Your task to perform on an android device: Open Yahoo.com Image 0: 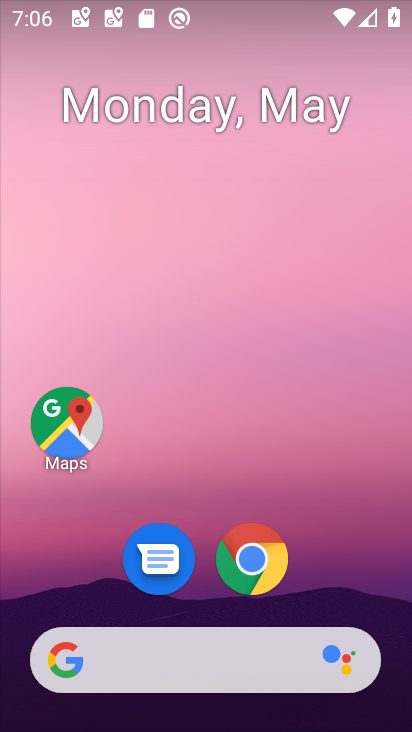
Step 0: drag from (402, 657) to (258, 82)
Your task to perform on an android device: Open Yahoo.com Image 1: 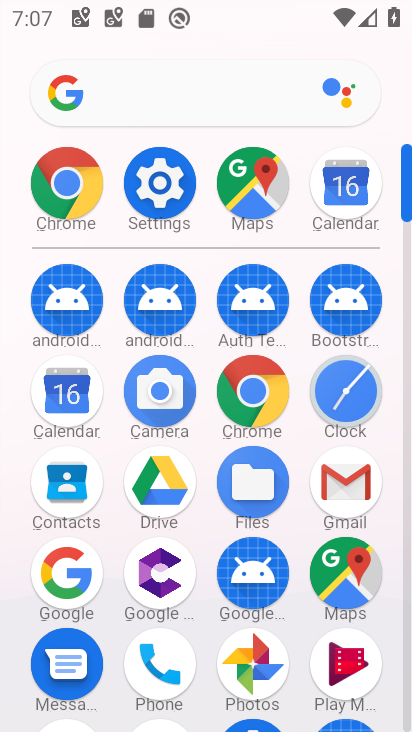
Step 1: click (270, 396)
Your task to perform on an android device: Open Yahoo.com Image 2: 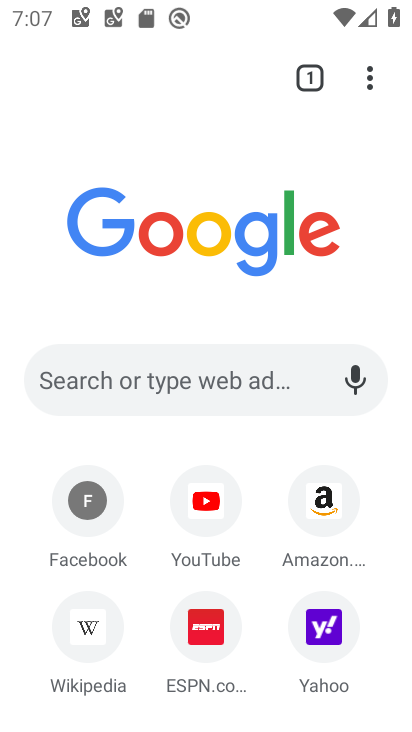
Step 2: click (321, 625)
Your task to perform on an android device: Open Yahoo.com Image 3: 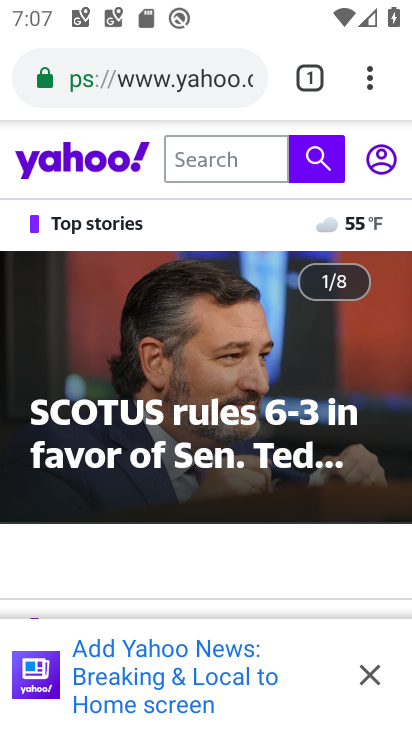
Step 3: task complete